Your task to perform on an android device: Turn off the flashlight Image 0: 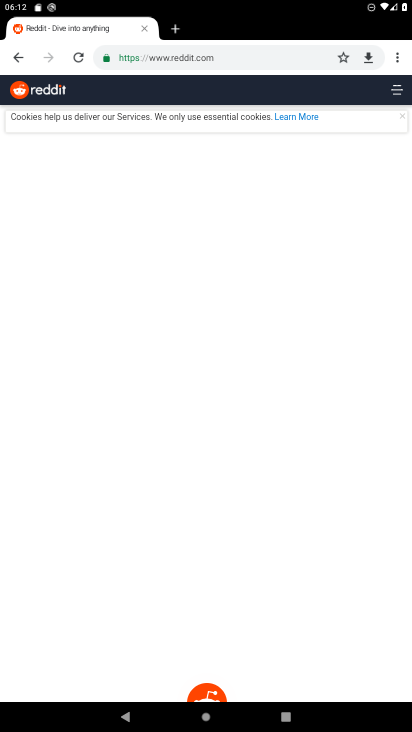
Step 0: press home button
Your task to perform on an android device: Turn off the flashlight Image 1: 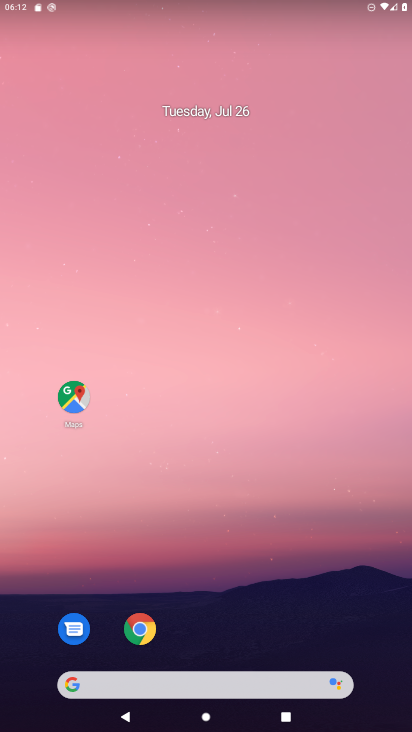
Step 1: drag from (201, 644) to (244, 109)
Your task to perform on an android device: Turn off the flashlight Image 2: 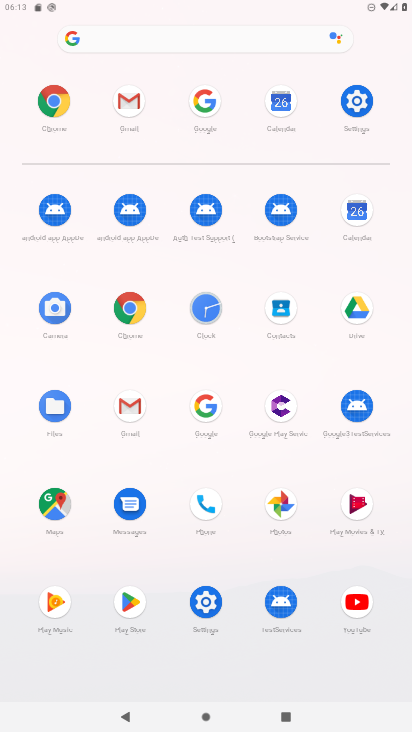
Step 2: click (363, 103)
Your task to perform on an android device: Turn off the flashlight Image 3: 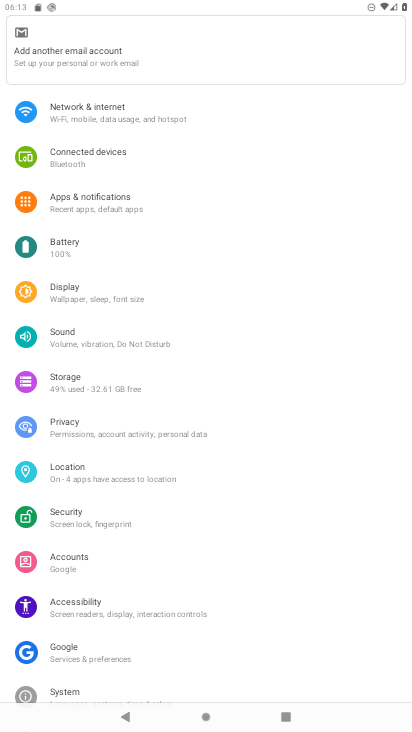
Step 3: task complete